Your task to perform on an android device: When is my next appointment? Image 0: 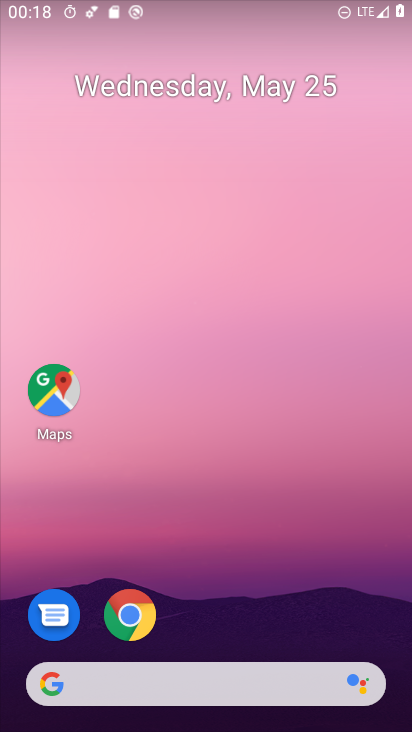
Step 0: press home button
Your task to perform on an android device: When is my next appointment? Image 1: 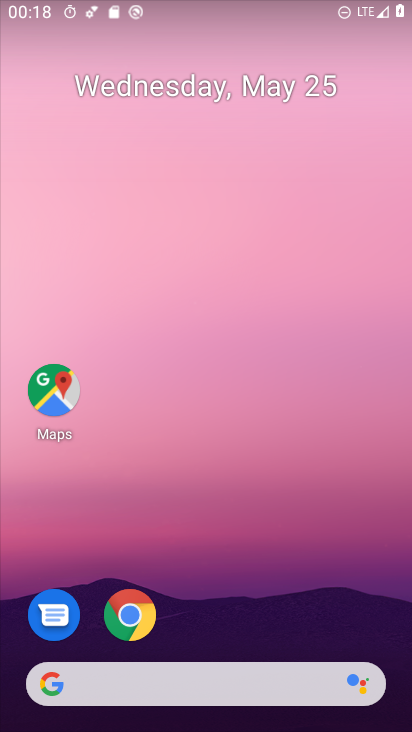
Step 1: drag from (291, 699) to (113, 2)
Your task to perform on an android device: When is my next appointment? Image 2: 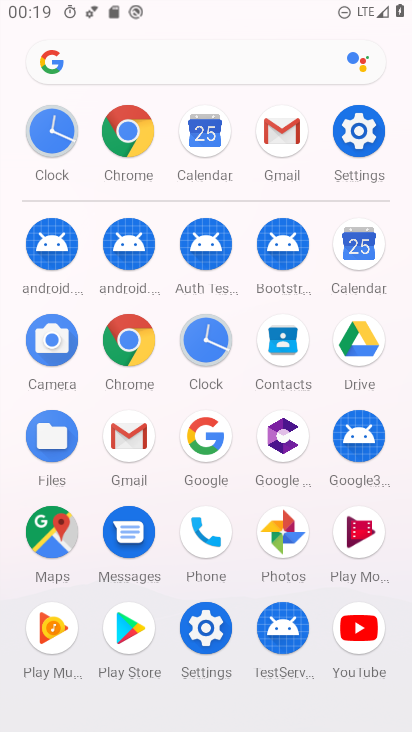
Step 2: click (360, 253)
Your task to perform on an android device: When is my next appointment? Image 3: 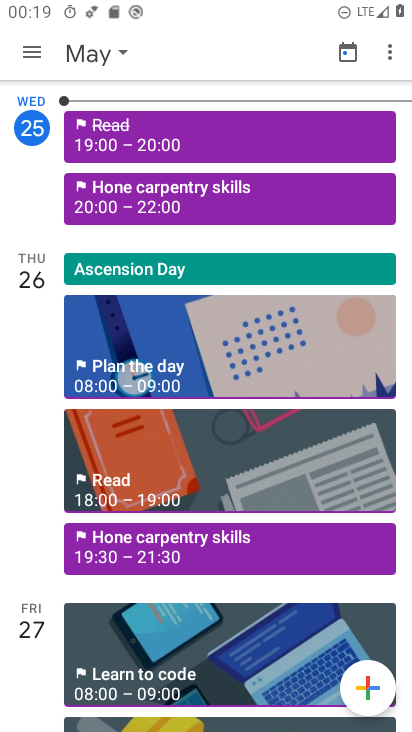
Step 3: task complete